Your task to perform on an android device: Show me the alarms in the clock app Image 0: 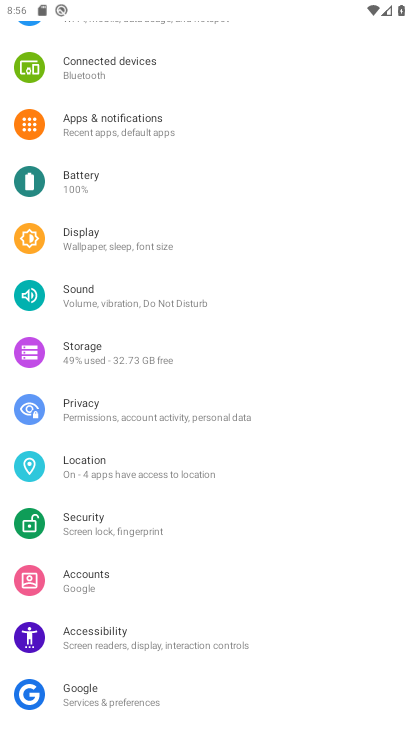
Step 0: press home button
Your task to perform on an android device: Show me the alarms in the clock app Image 1: 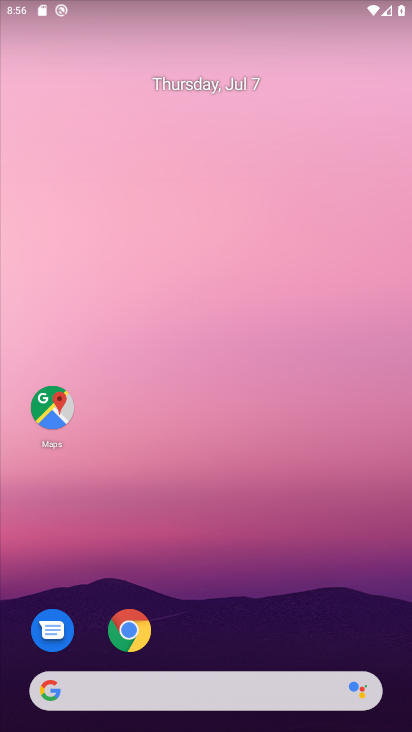
Step 1: drag from (17, 716) to (248, 9)
Your task to perform on an android device: Show me the alarms in the clock app Image 2: 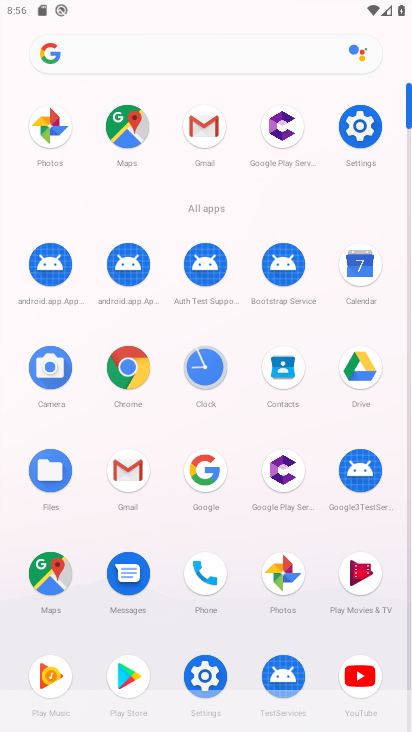
Step 2: click (204, 367)
Your task to perform on an android device: Show me the alarms in the clock app Image 3: 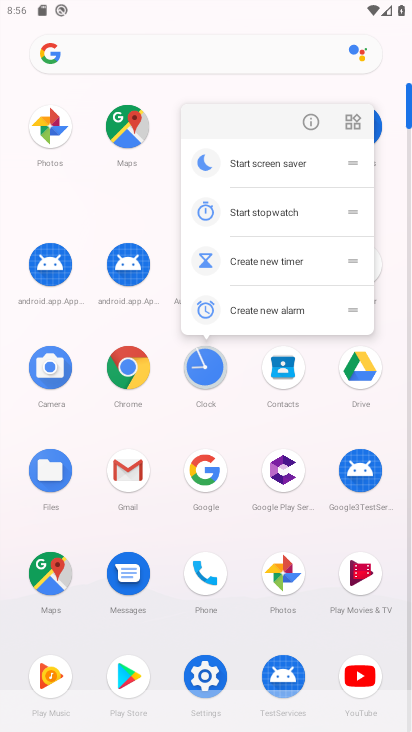
Step 3: click (200, 368)
Your task to perform on an android device: Show me the alarms in the clock app Image 4: 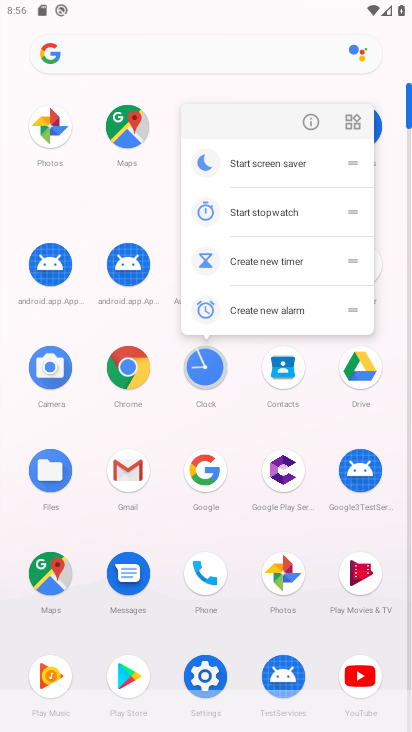
Step 4: click (201, 375)
Your task to perform on an android device: Show me the alarms in the clock app Image 5: 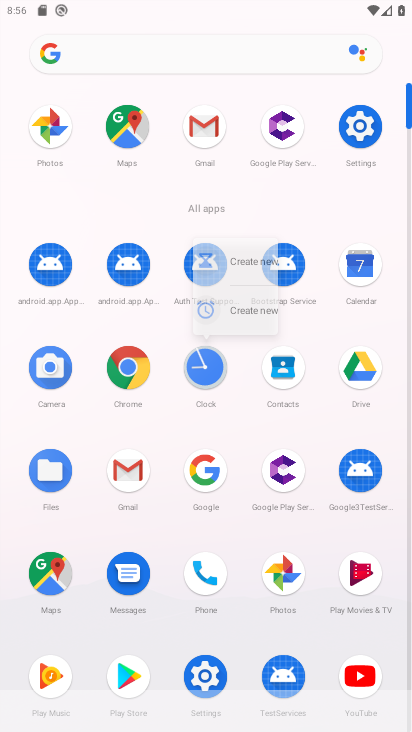
Step 5: click (201, 375)
Your task to perform on an android device: Show me the alarms in the clock app Image 6: 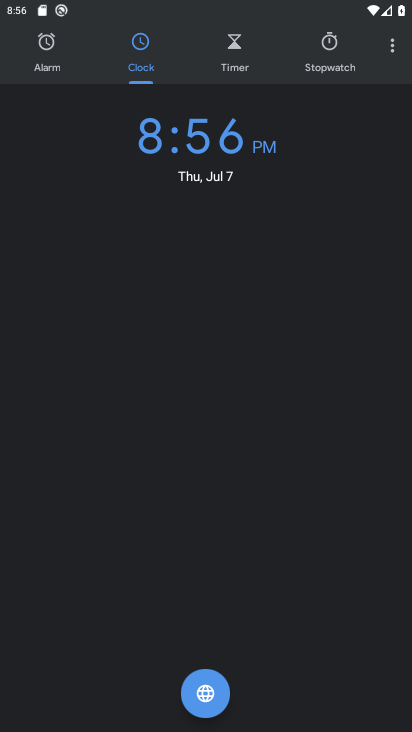
Step 6: click (49, 61)
Your task to perform on an android device: Show me the alarms in the clock app Image 7: 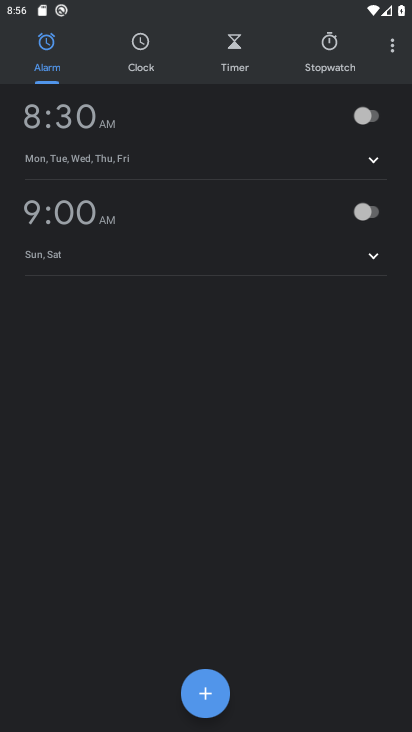
Step 7: task complete